Your task to perform on an android device: Open settings Image 0: 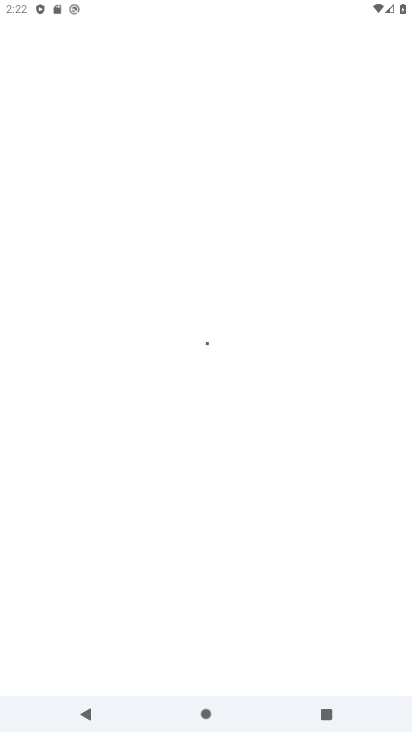
Step 0: press home button
Your task to perform on an android device: Open settings Image 1: 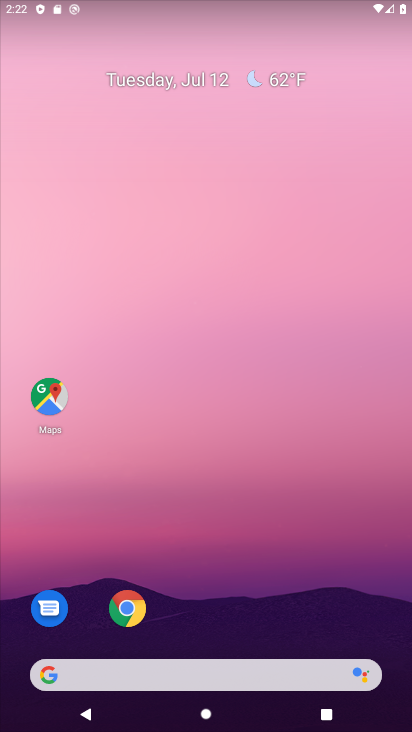
Step 1: drag from (169, 643) to (291, 38)
Your task to perform on an android device: Open settings Image 2: 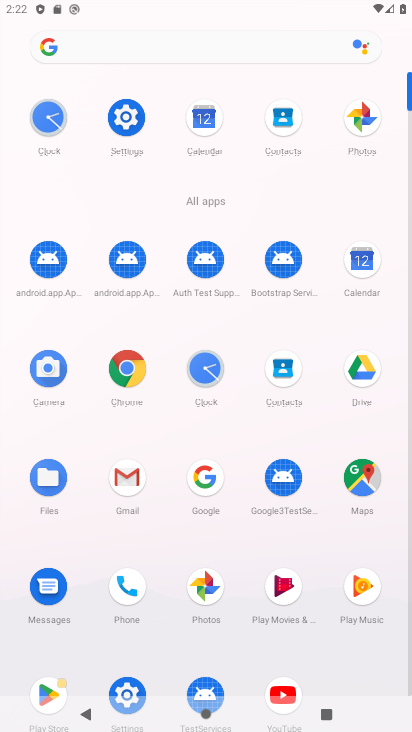
Step 2: click (128, 119)
Your task to perform on an android device: Open settings Image 3: 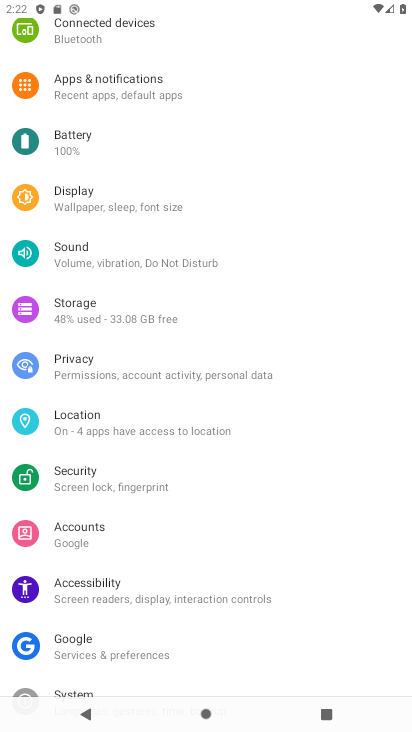
Step 3: task complete